Your task to perform on an android device: see sites visited before in the chrome app Image 0: 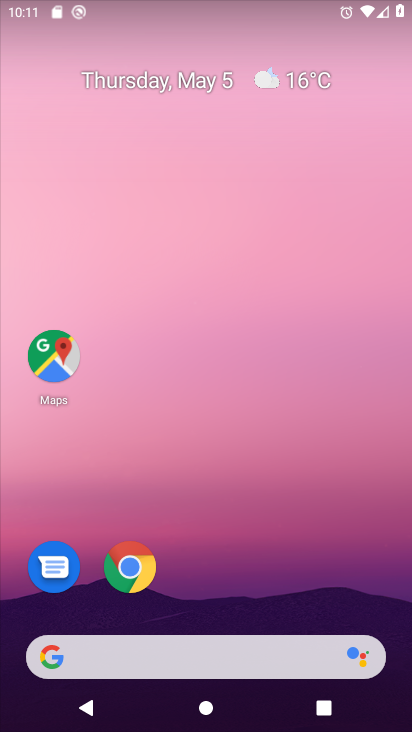
Step 0: drag from (309, 556) to (314, 58)
Your task to perform on an android device: see sites visited before in the chrome app Image 1: 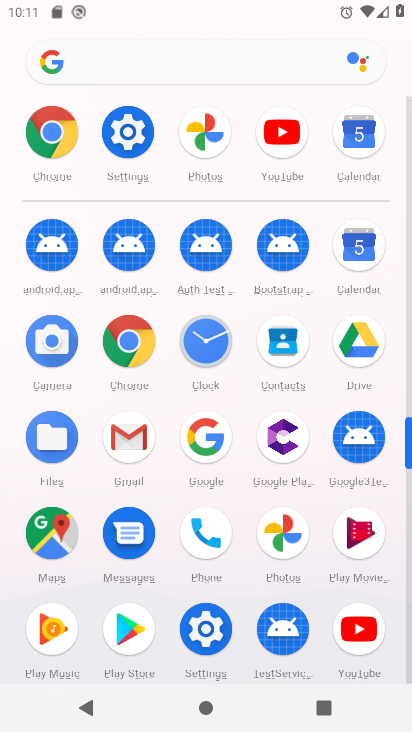
Step 1: click (64, 135)
Your task to perform on an android device: see sites visited before in the chrome app Image 2: 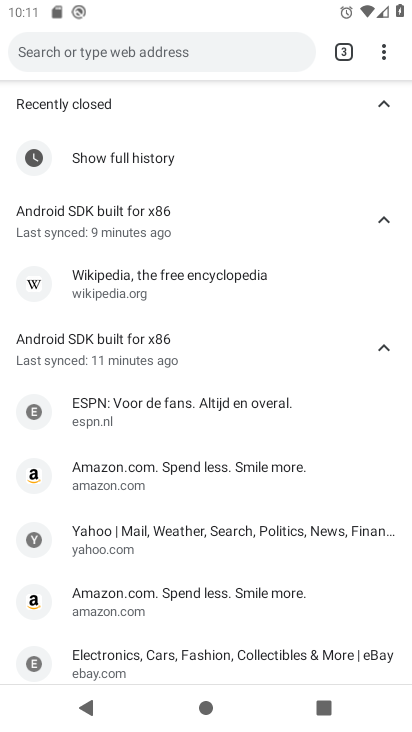
Step 2: task complete